Your task to perform on an android device: Add "razer kraken" to the cart on costco, then select checkout. Image 0: 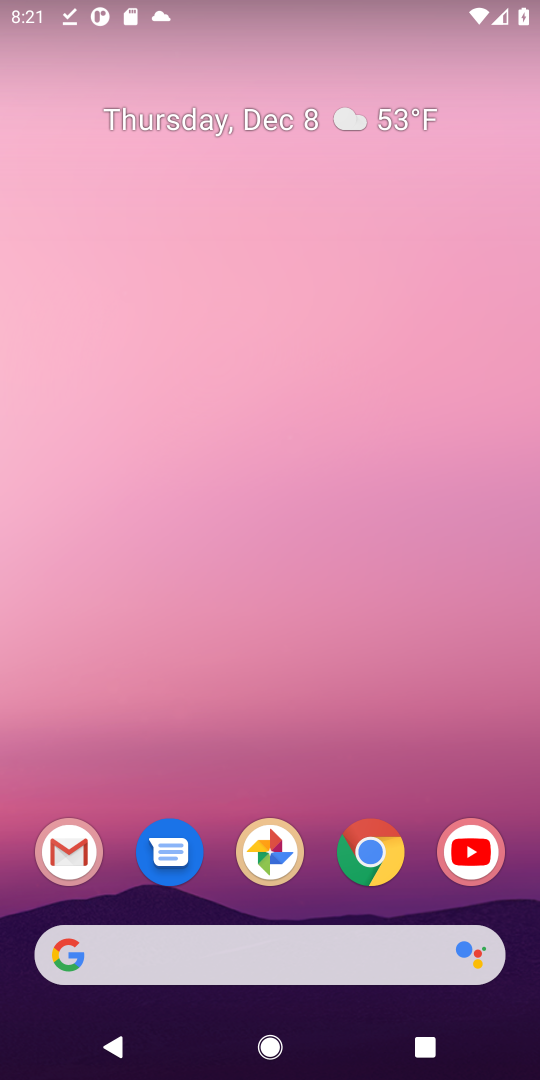
Step 0: press home button
Your task to perform on an android device: Add "razer kraken" to the cart on costco, then select checkout. Image 1: 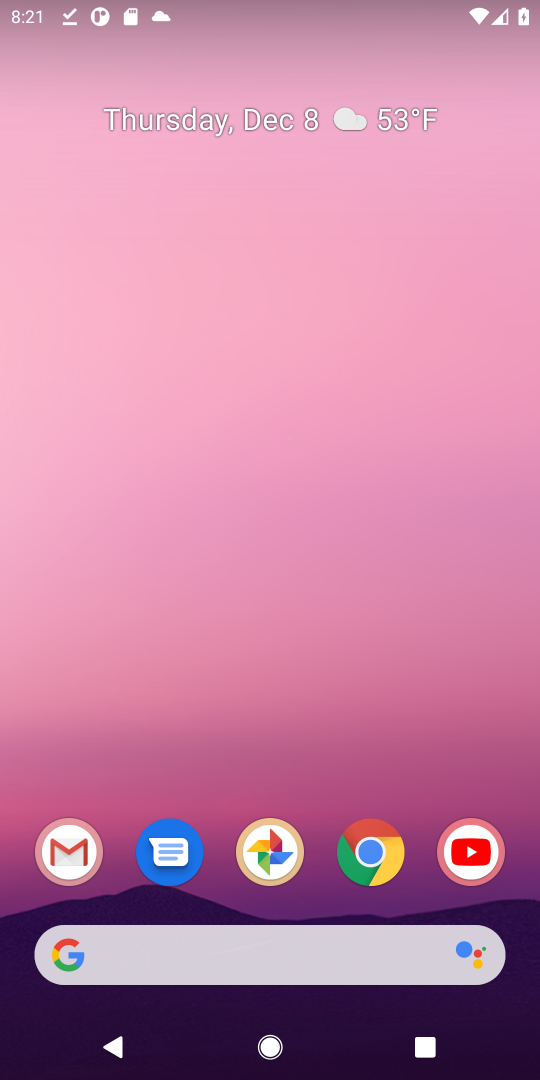
Step 1: click (227, 968)
Your task to perform on an android device: Add "razer kraken" to the cart on costco, then select checkout. Image 2: 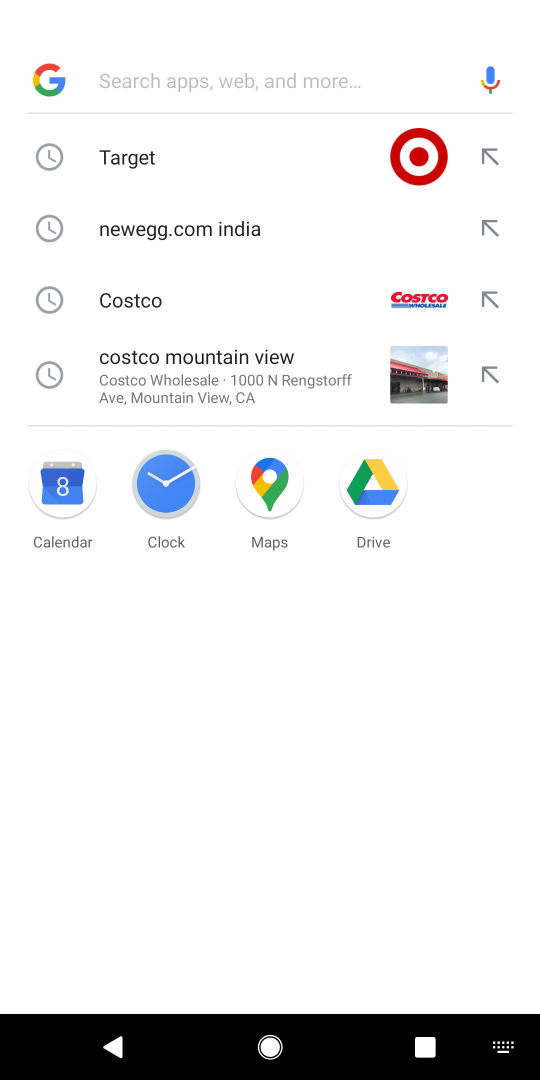
Step 2: type "walmart"
Your task to perform on an android device: Add "razer kraken" to the cart on costco, then select checkout. Image 3: 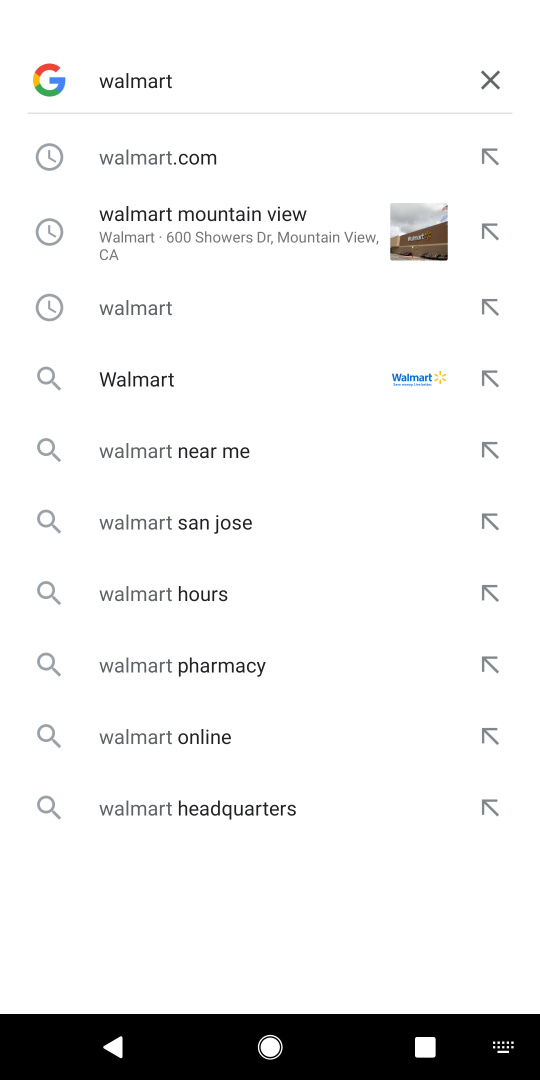
Step 3: click (162, 169)
Your task to perform on an android device: Add "razer kraken" to the cart on costco, then select checkout. Image 4: 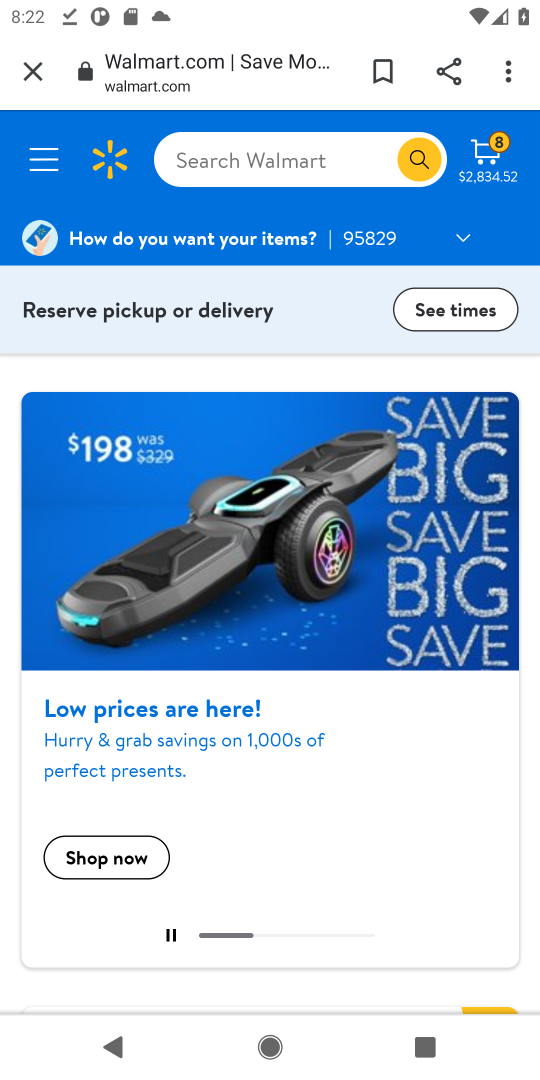
Step 4: click (254, 158)
Your task to perform on an android device: Add "razer kraken" to the cart on costco, then select checkout. Image 5: 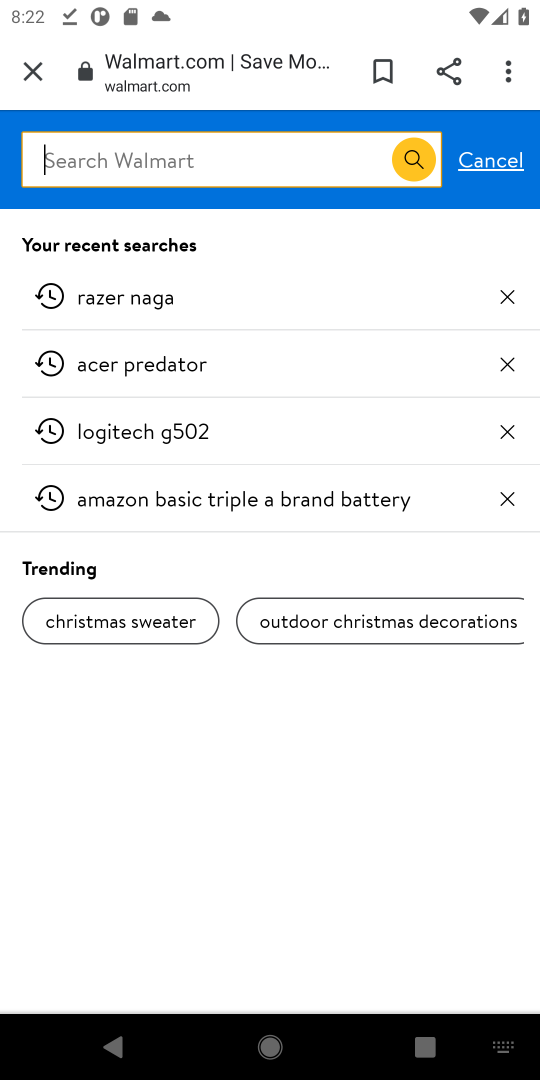
Step 5: type "razer karken"
Your task to perform on an android device: Add "razer kraken" to the cart on costco, then select checkout. Image 6: 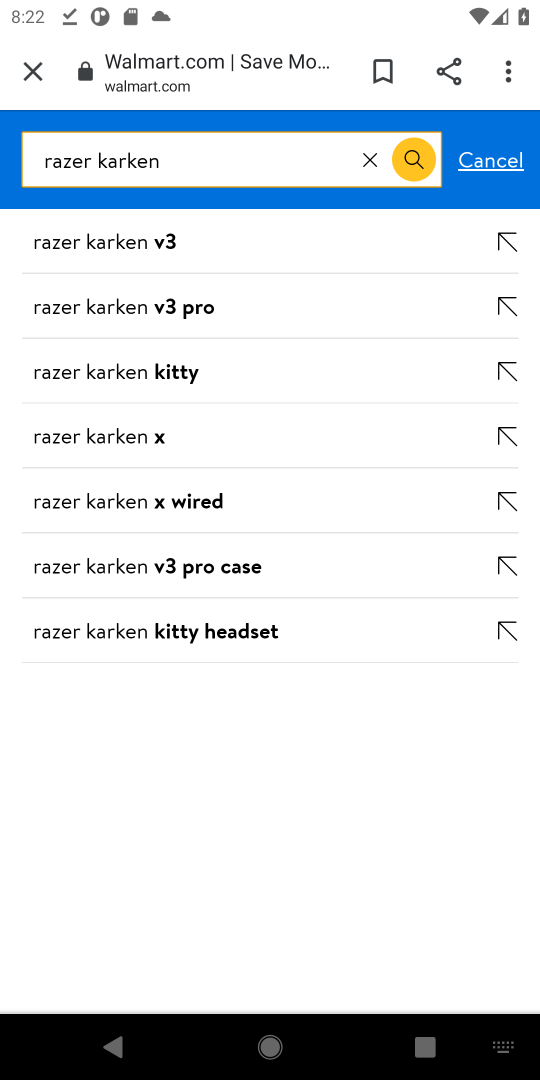
Step 6: click (408, 154)
Your task to perform on an android device: Add "razer kraken" to the cart on costco, then select checkout. Image 7: 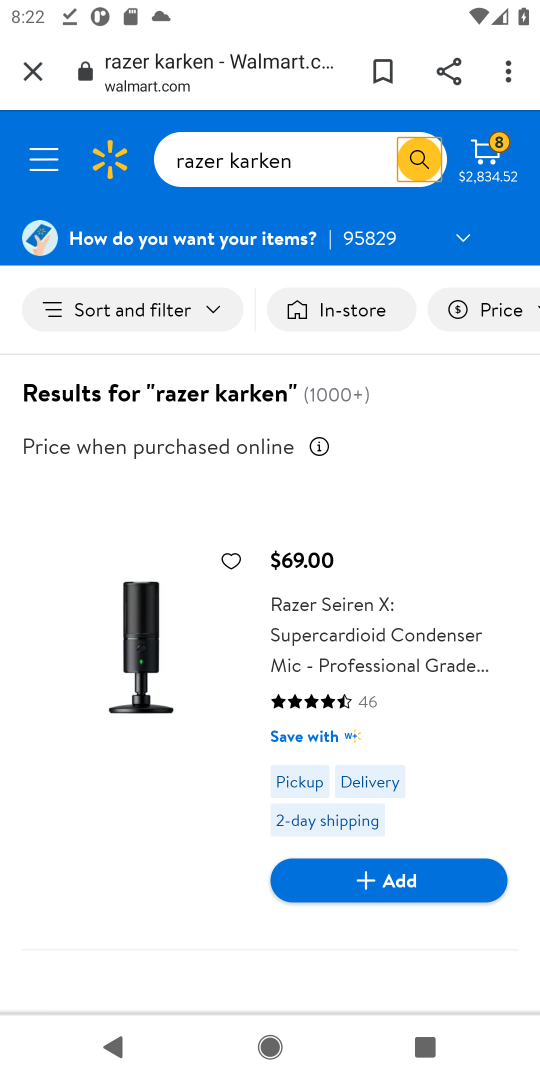
Step 7: click (419, 889)
Your task to perform on an android device: Add "razer kraken" to the cart on costco, then select checkout. Image 8: 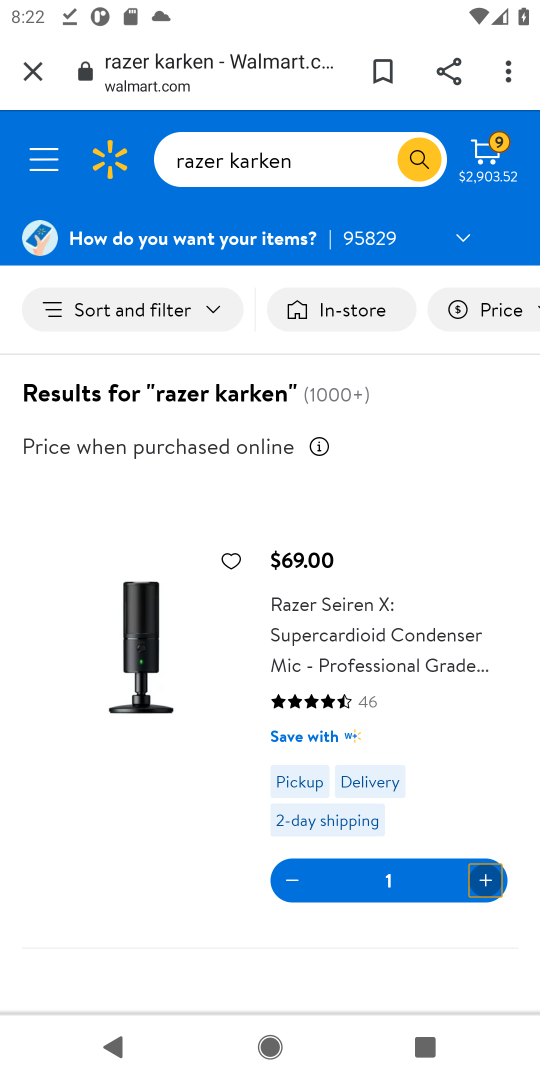
Step 8: task complete